Your task to perform on an android device: Show me popular games on the Play Store Image 0: 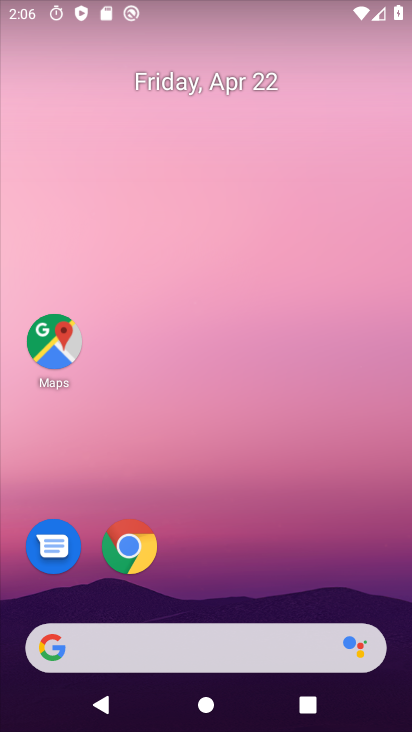
Step 0: drag from (191, 557) to (253, 111)
Your task to perform on an android device: Show me popular games on the Play Store Image 1: 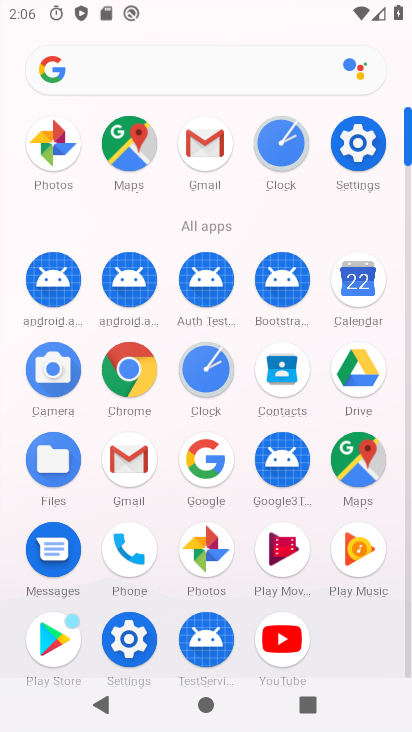
Step 1: click (48, 649)
Your task to perform on an android device: Show me popular games on the Play Store Image 2: 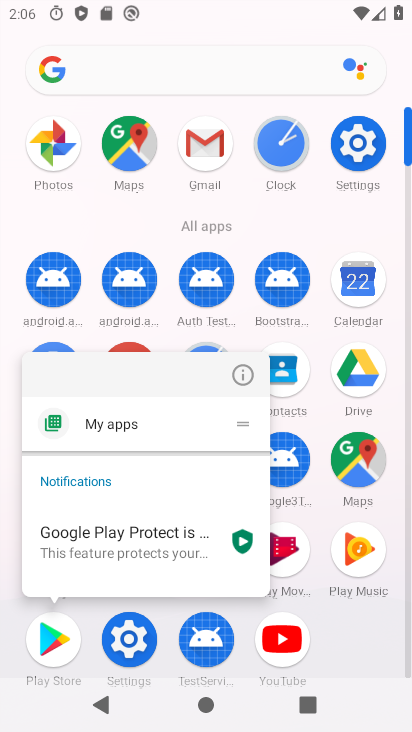
Step 2: click (241, 373)
Your task to perform on an android device: Show me popular games on the Play Store Image 3: 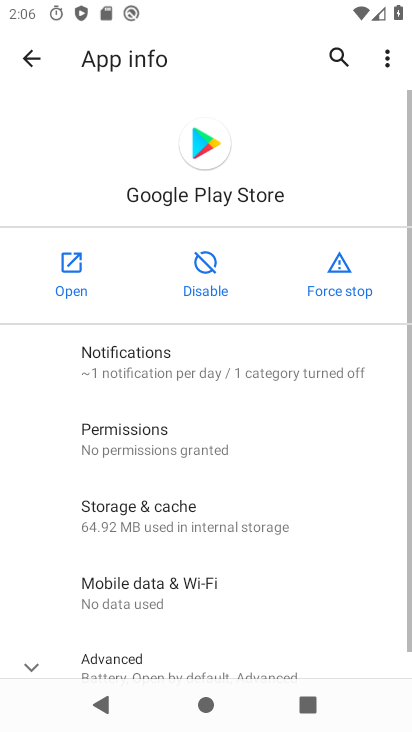
Step 3: click (70, 275)
Your task to perform on an android device: Show me popular games on the Play Store Image 4: 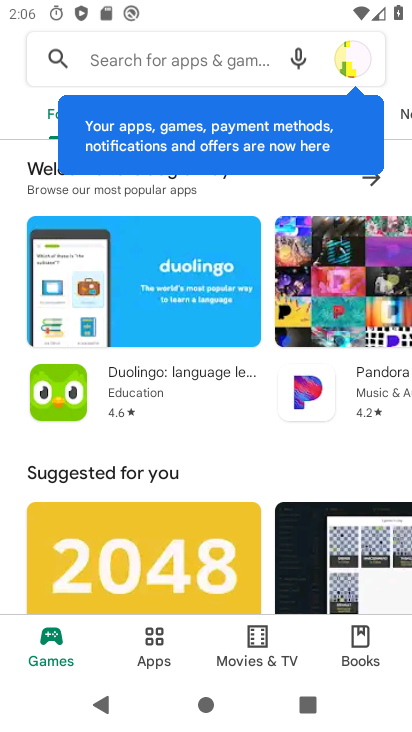
Step 4: drag from (221, 443) to (13, 369)
Your task to perform on an android device: Show me popular games on the Play Store Image 5: 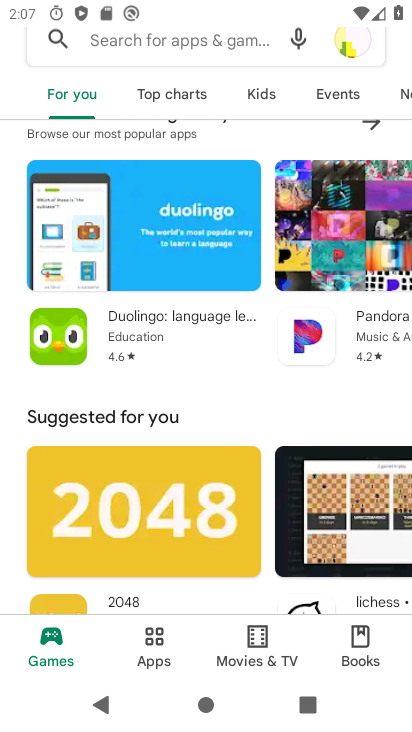
Step 5: drag from (216, 344) to (194, 33)
Your task to perform on an android device: Show me popular games on the Play Store Image 6: 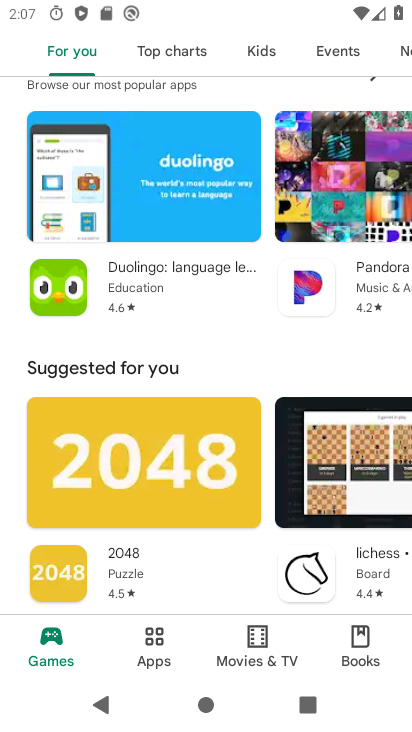
Step 6: click (158, 641)
Your task to perform on an android device: Show me popular games on the Play Store Image 7: 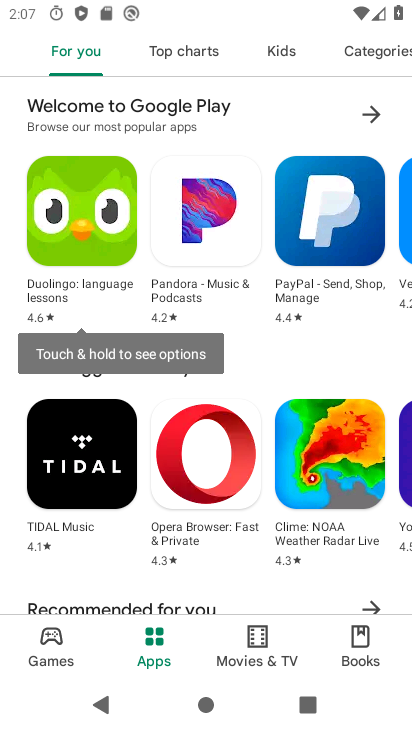
Step 7: click (284, 62)
Your task to perform on an android device: Show me popular games on the Play Store Image 8: 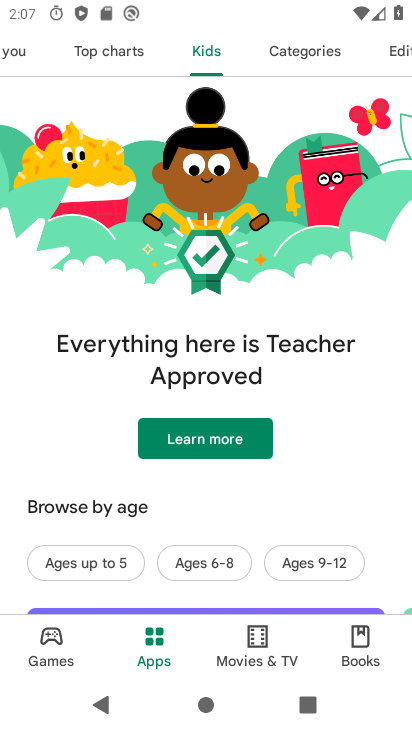
Step 8: click (331, 59)
Your task to perform on an android device: Show me popular games on the Play Store Image 9: 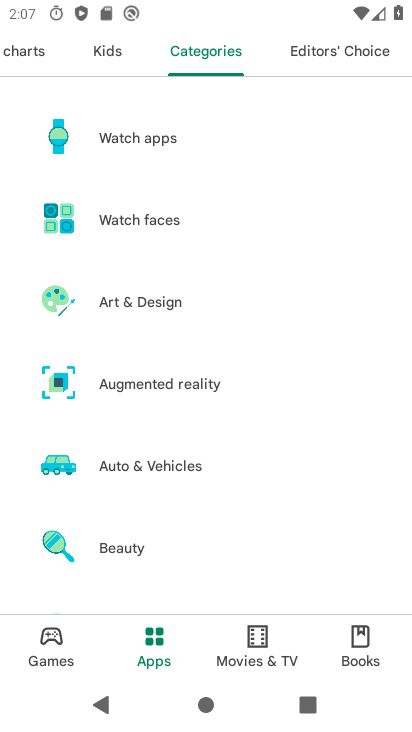
Step 9: drag from (219, 435) to (238, 56)
Your task to perform on an android device: Show me popular games on the Play Store Image 10: 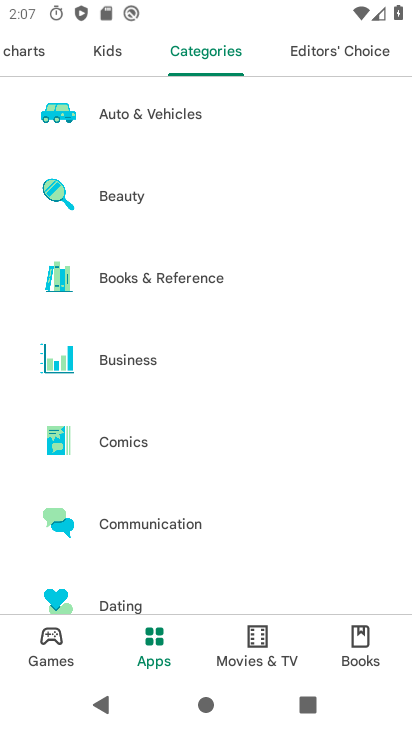
Step 10: drag from (175, 550) to (215, 162)
Your task to perform on an android device: Show me popular games on the Play Store Image 11: 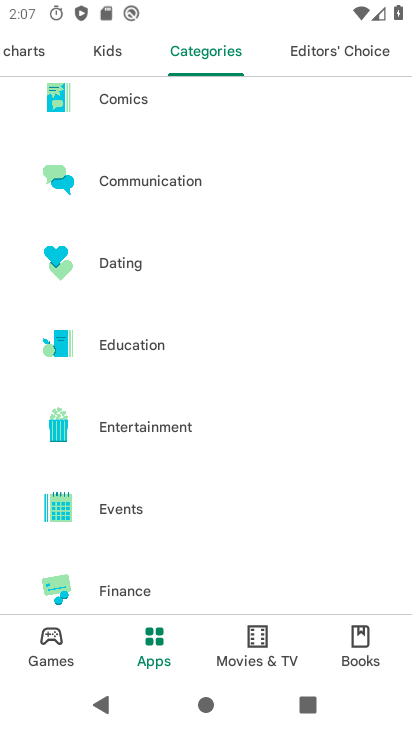
Step 11: drag from (189, 552) to (251, 715)
Your task to perform on an android device: Show me popular games on the Play Store Image 12: 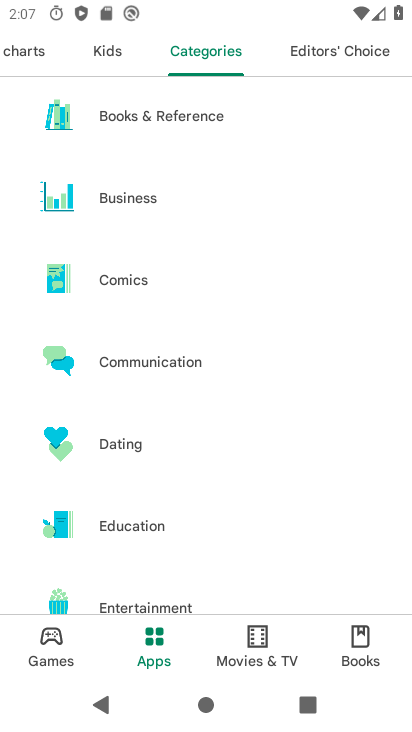
Step 12: click (153, 67)
Your task to perform on an android device: Show me popular games on the Play Store Image 13: 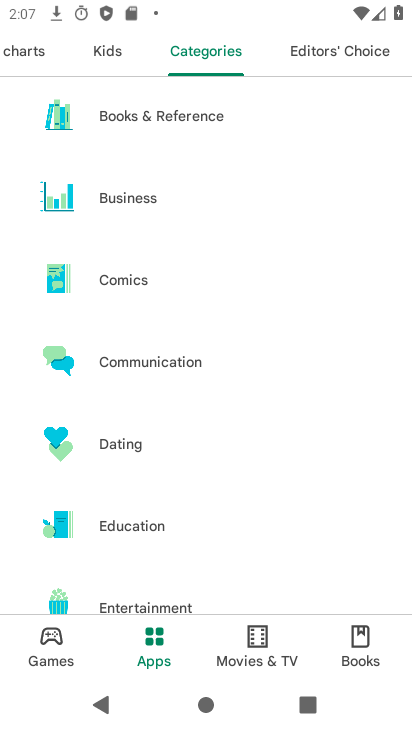
Step 13: drag from (164, 63) to (380, 535)
Your task to perform on an android device: Show me popular games on the Play Store Image 14: 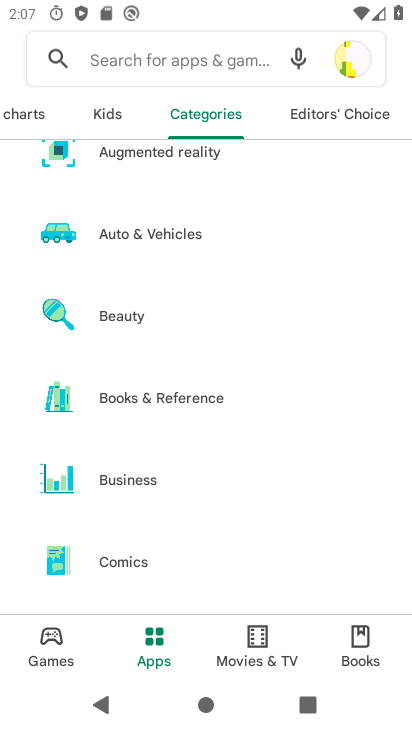
Step 14: click (158, 50)
Your task to perform on an android device: Show me popular games on the Play Store Image 15: 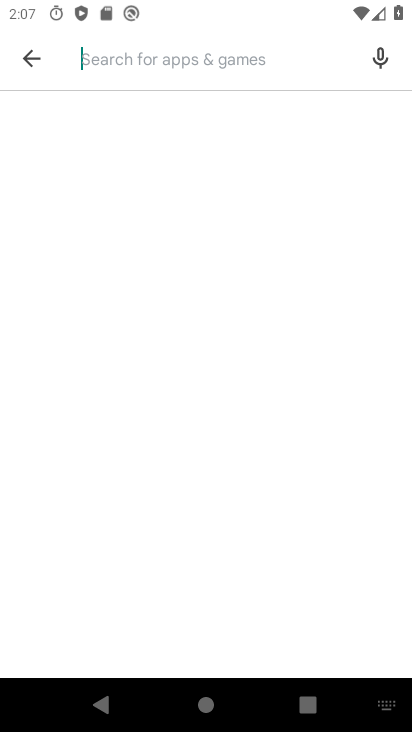
Step 15: type "games"
Your task to perform on an android device: Show me popular games on the Play Store Image 16: 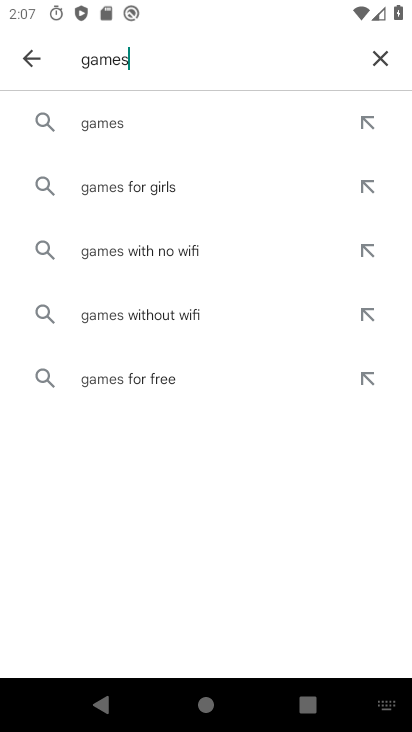
Step 16: click (166, 127)
Your task to perform on an android device: Show me popular games on the Play Store Image 17: 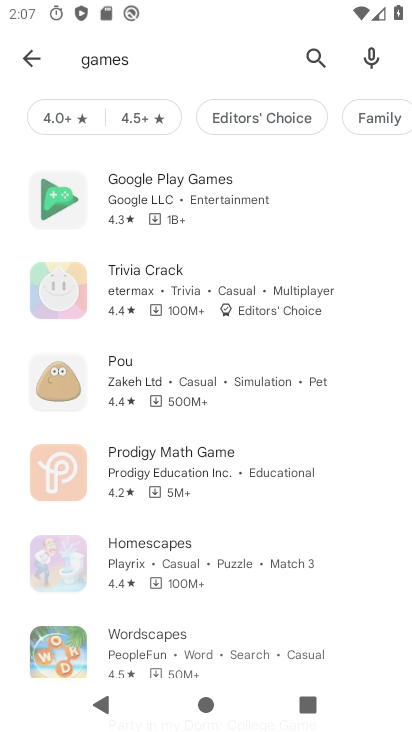
Step 17: task complete